Your task to perform on an android device: Show me popular videos on Youtube Image 0: 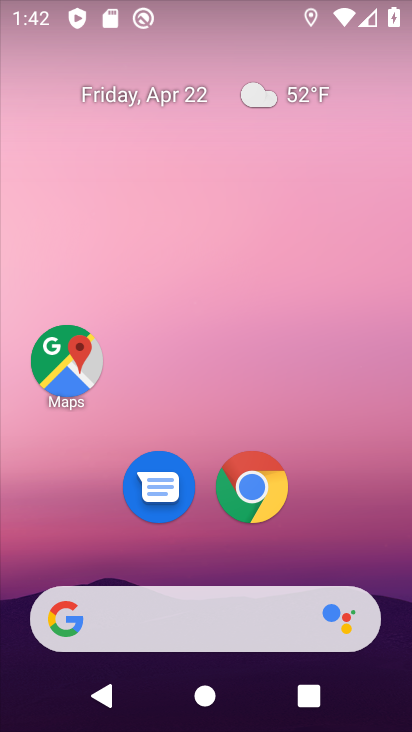
Step 0: click (251, 481)
Your task to perform on an android device: Show me popular videos on Youtube Image 1: 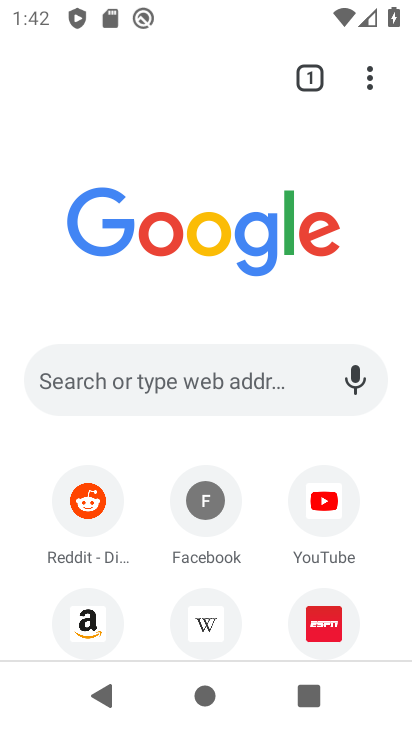
Step 1: press home button
Your task to perform on an android device: Show me popular videos on Youtube Image 2: 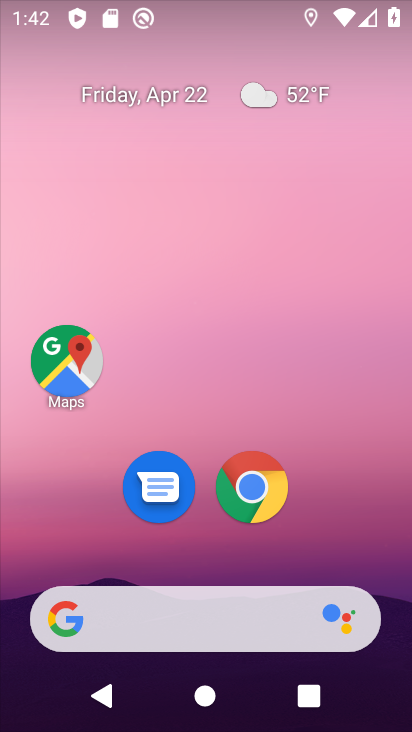
Step 2: drag from (230, 561) to (324, 5)
Your task to perform on an android device: Show me popular videos on Youtube Image 3: 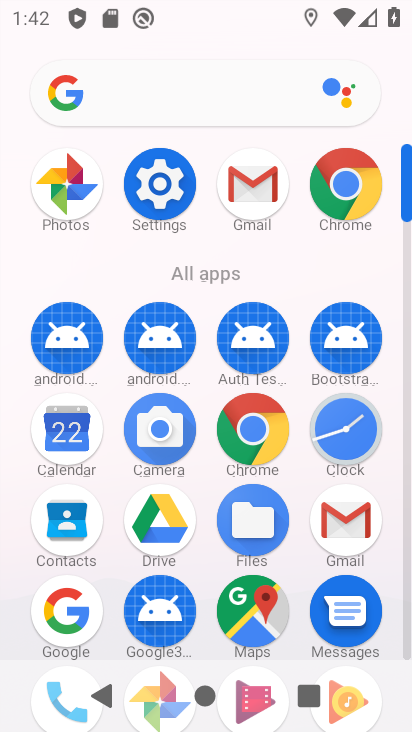
Step 3: drag from (296, 553) to (330, 274)
Your task to perform on an android device: Show me popular videos on Youtube Image 4: 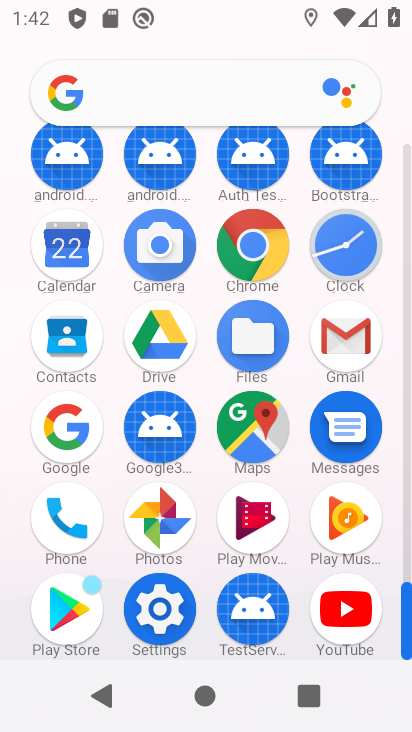
Step 4: click (352, 625)
Your task to perform on an android device: Show me popular videos on Youtube Image 5: 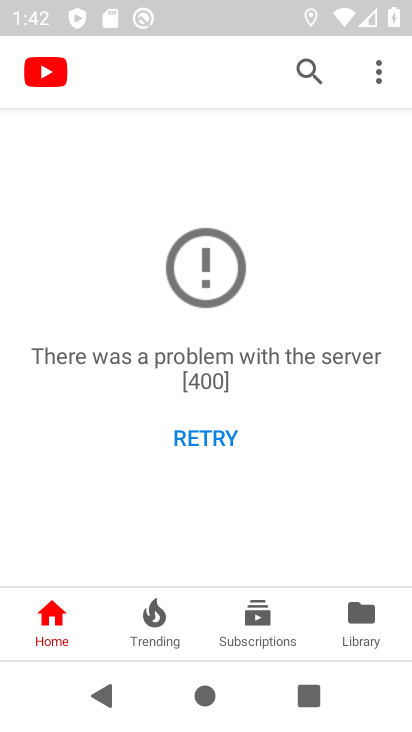
Step 5: click (155, 630)
Your task to perform on an android device: Show me popular videos on Youtube Image 6: 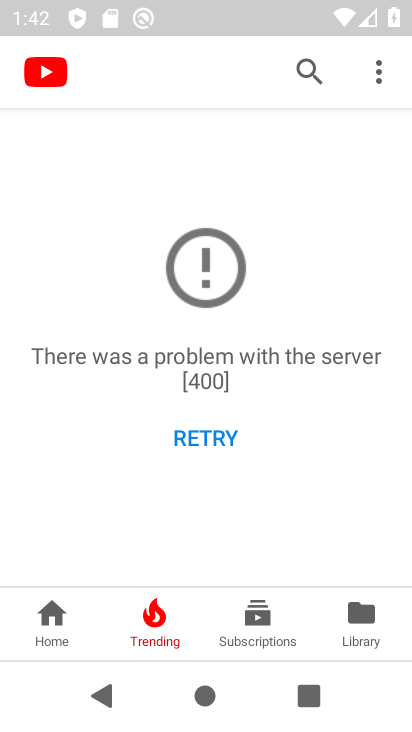
Step 6: drag from (215, 235) to (207, 290)
Your task to perform on an android device: Show me popular videos on Youtube Image 7: 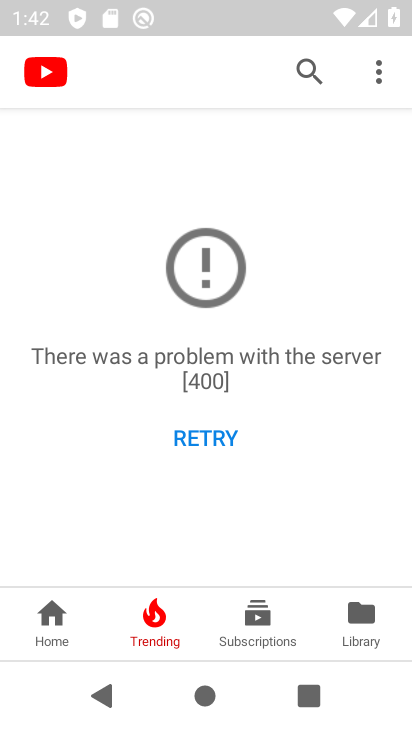
Step 7: click (209, 444)
Your task to perform on an android device: Show me popular videos on Youtube Image 8: 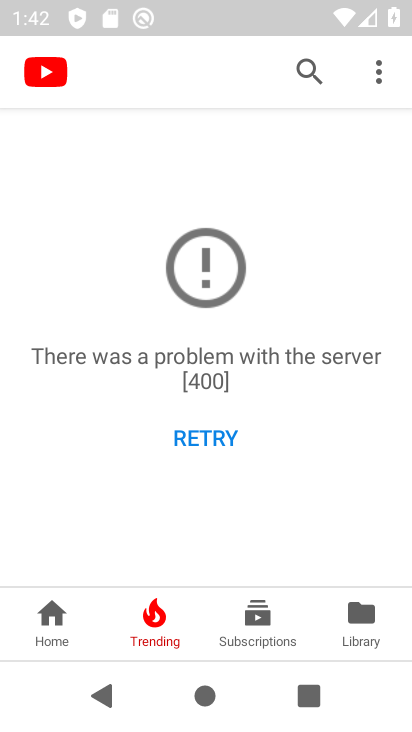
Step 8: click (206, 430)
Your task to perform on an android device: Show me popular videos on Youtube Image 9: 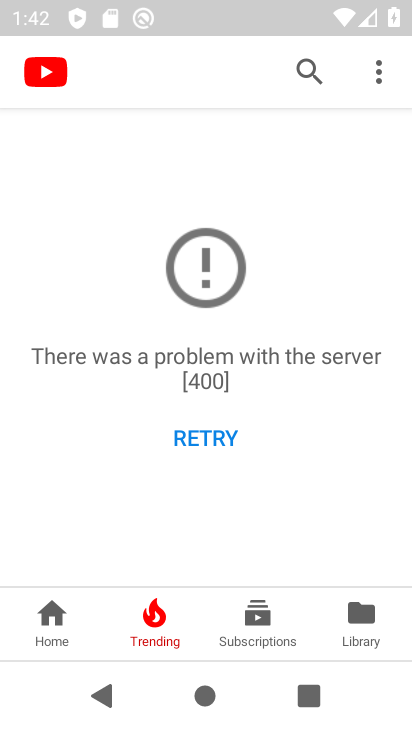
Step 9: task complete